Your task to perform on an android device: turn notification dots on Image 0: 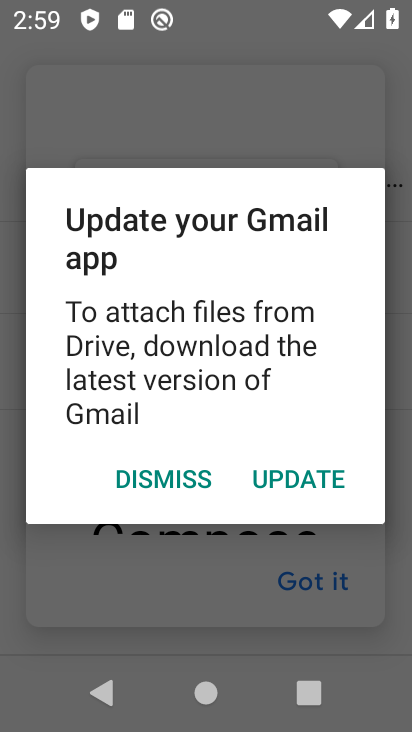
Step 0: press home button
Your task to perform on an android device: turn notification dots on Image 1: 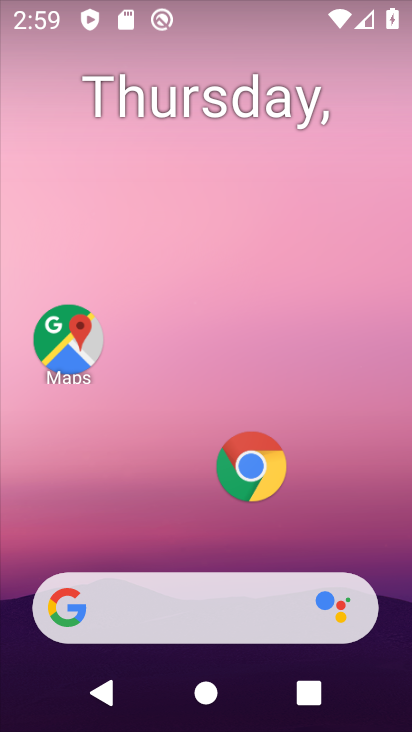
Step 1: drag from (195, 537) to (247, 79)
Your task to perform on an android device: turn notification dots on Image 2: 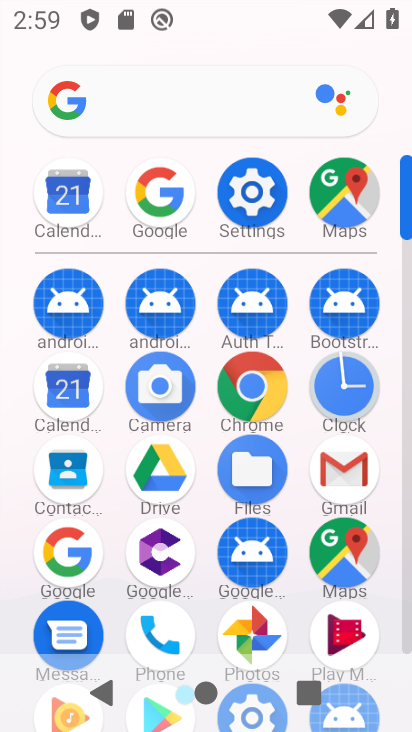
Step 2: click (237, 188)
Your task to perform on an android device: turn notification dots on Image 3: 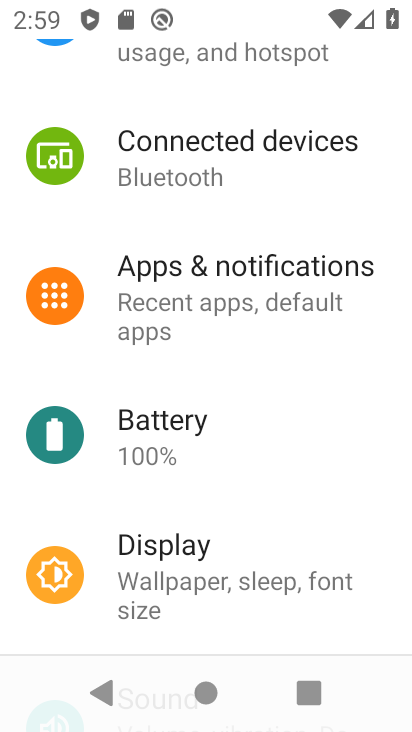
Step 3: click (213, 284)
Your task to perform on an android device: turn notification dots on Image 4: 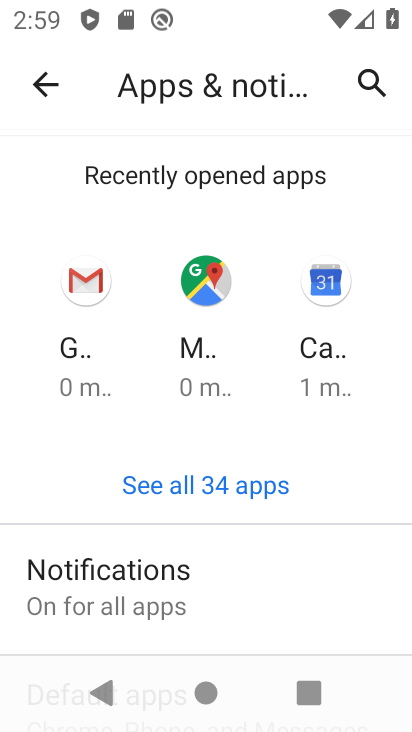
Step 4: click (174, 576)
Your task to perform on an android device: turn notification dots on Image 5: 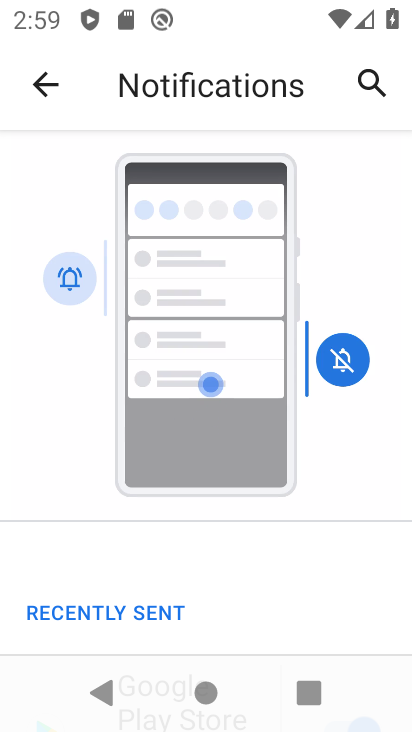
Step 5: drag from (243, 602) to (270, 199)
Your task to perform on an android device: turn notification dots on Image 6: 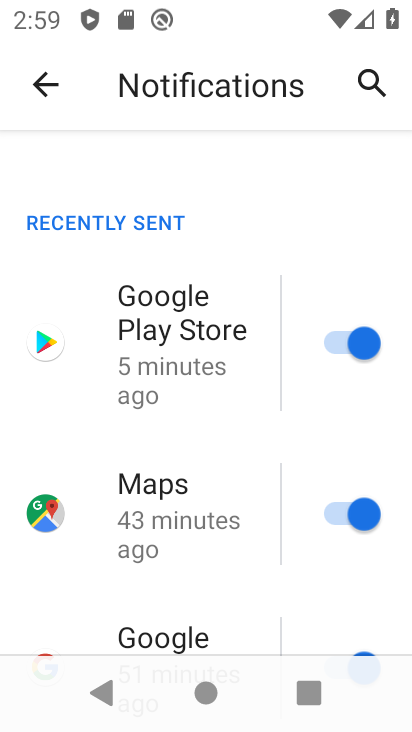
Step 6: drag from (260, 543) to (252, 287)
Your task to perform on an android device: turn notification dots on Image 7: 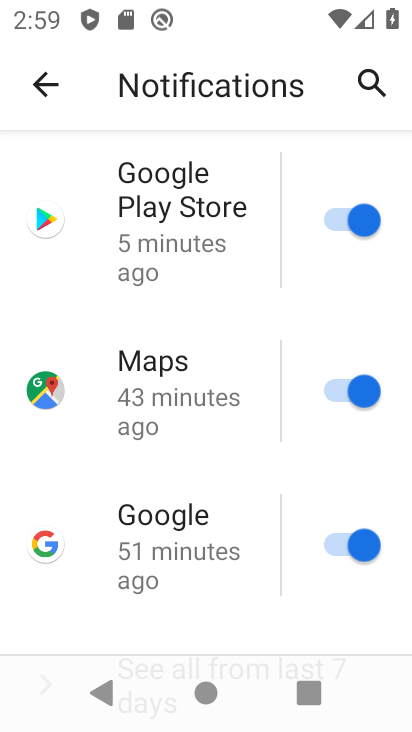
Step 7: drag from (253, 598) to (253, 294)
Your task to perform on an android device: turn notification dots on Image 8: 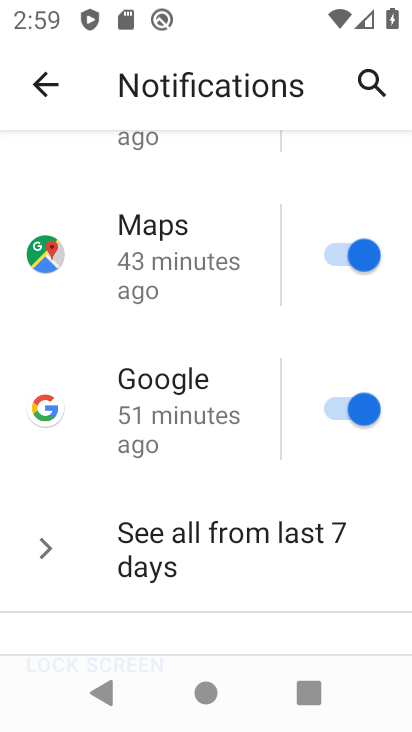
Step 8: drag from (252, 389) to (252, 236)
Your task to perform on an android device: turn notification dots on Image 9: 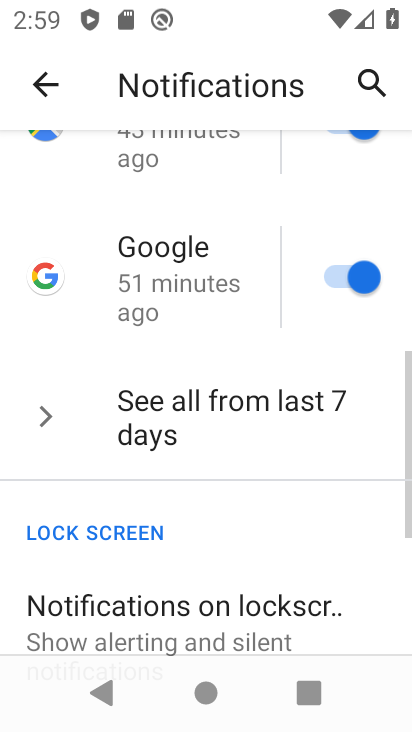
Step 9: drag from (267, 530) to (261, 272)
Your task to perform on an android device: turn notification dots on Image 10: 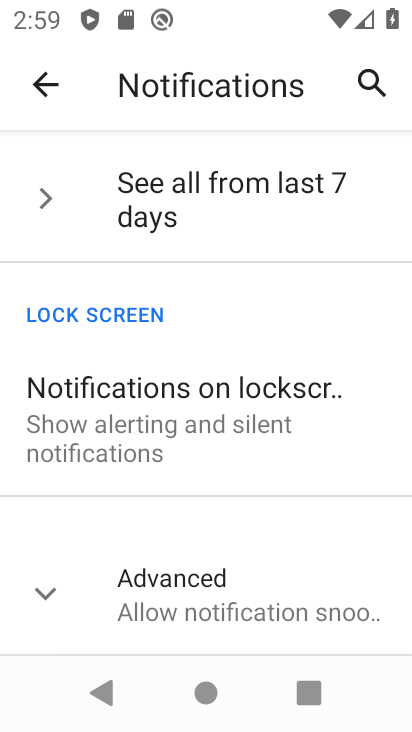
Step 10: drag from (266, 433) to (266, 376)
Your task to perform on an android device: turn notification dots on Image 11: 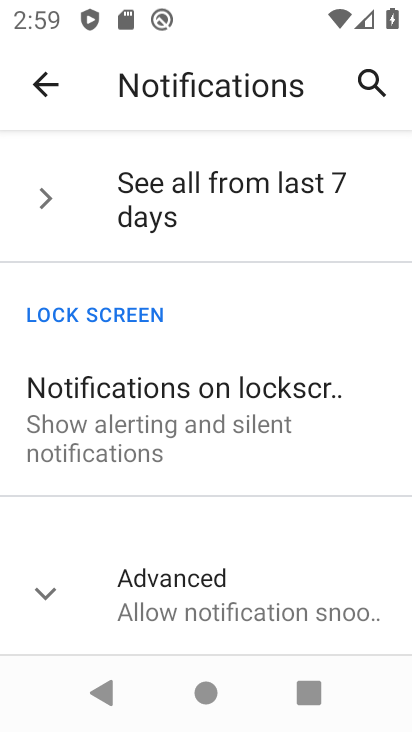
Step 11: click (213, 580)
Your task to perform on an android device: turn notification dots on Image 12: 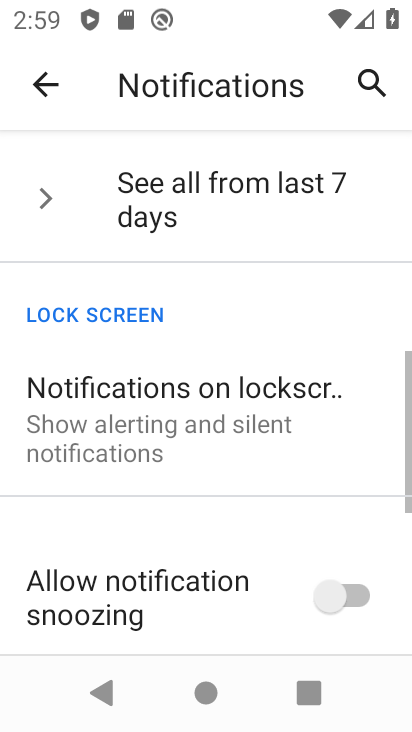
Step 12: task complete